Your task to perform on an android device: change keyboard looks Image 0: 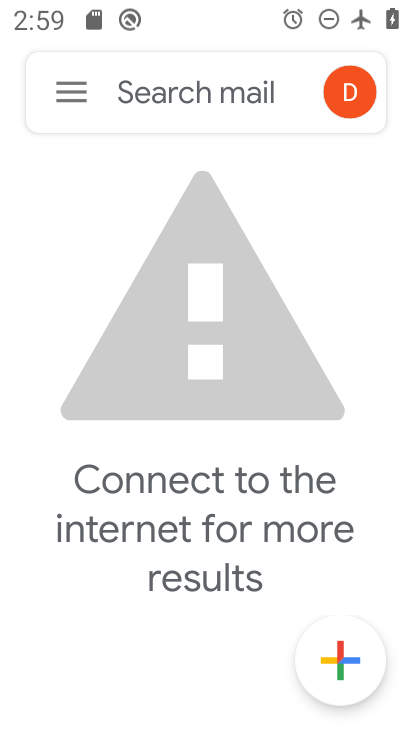
Step 0: press home button
Your task to perform on an android device: change keyboard looks Image 1: 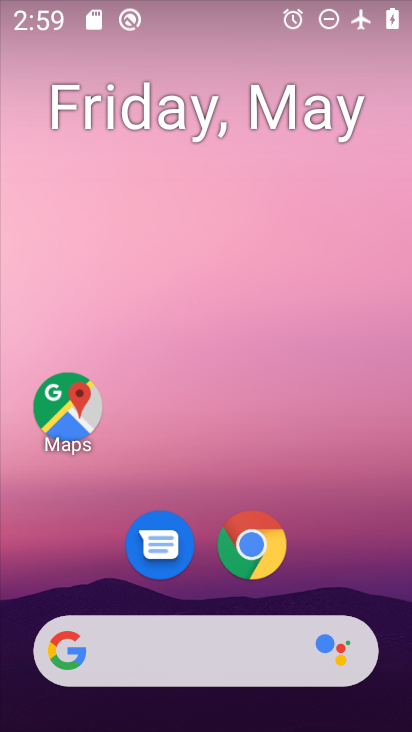
Step 1: drag from (327, 589) to (284, 360)
Your task to perform on an android device: change keyboard looks Image 2: 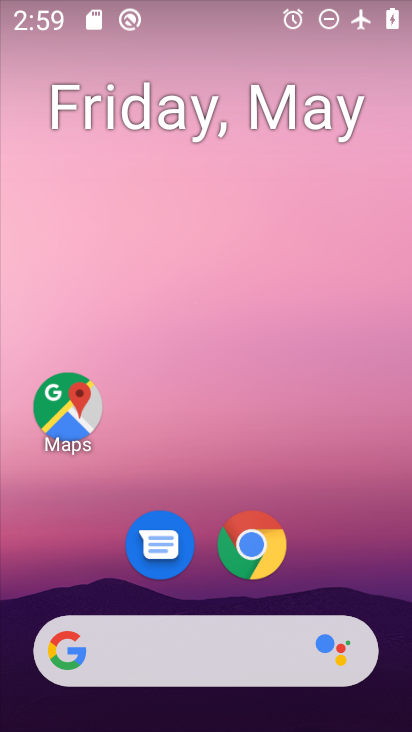
Step 2: click (217, 345)
Your task to perform on an android device: change keyboard looks Image 3: 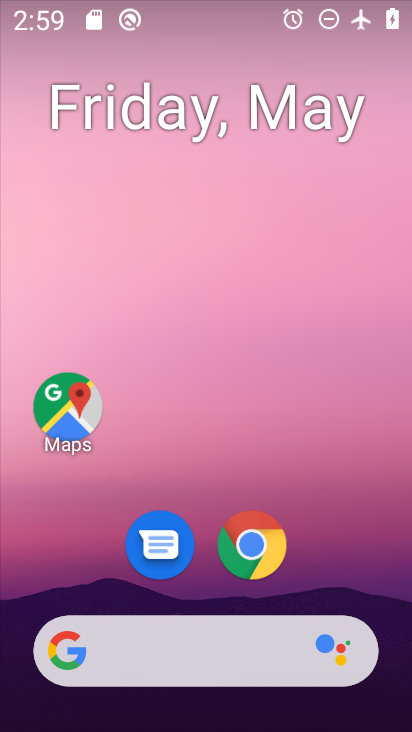
Step 3: drag from (218, 509) to (248, 258)
Your task to perform on an android device: change keyboard looks Image 4: 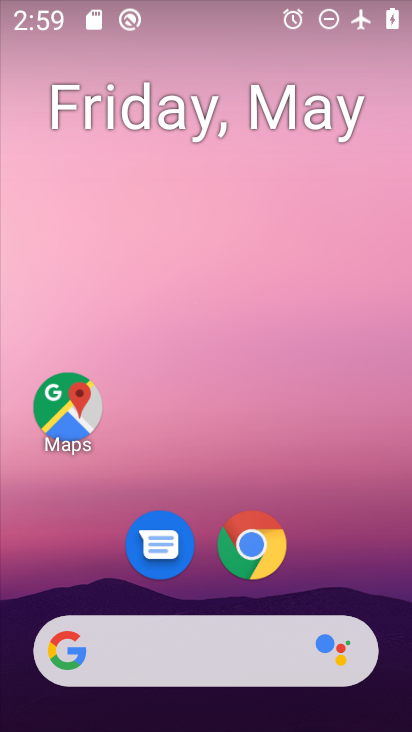
Step 4: drag from (211, 555) to (261, 207)
Your task to perform on an android device: change keyboard looks Image 5: 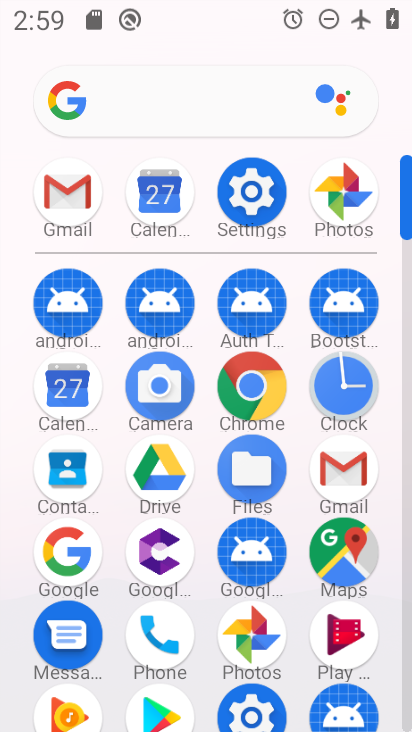
Step 5: click (244, 176)
Your task to perform on an android device: change keyboard looks Image 6: 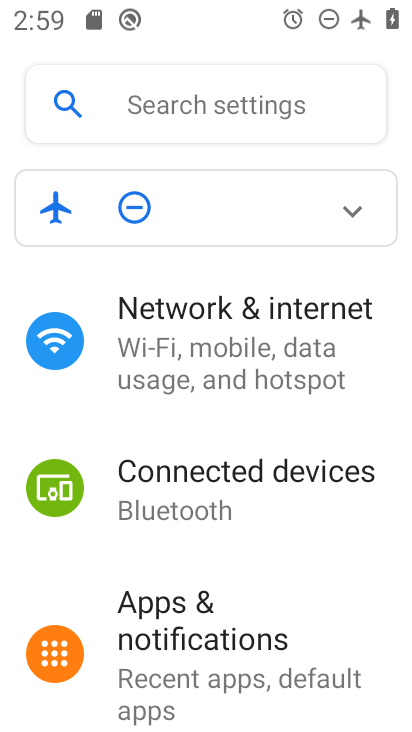
Step 6: drag from (189, 688) to (217, 190)
Your task to perform on an android device: change keyboard looks Image 7: 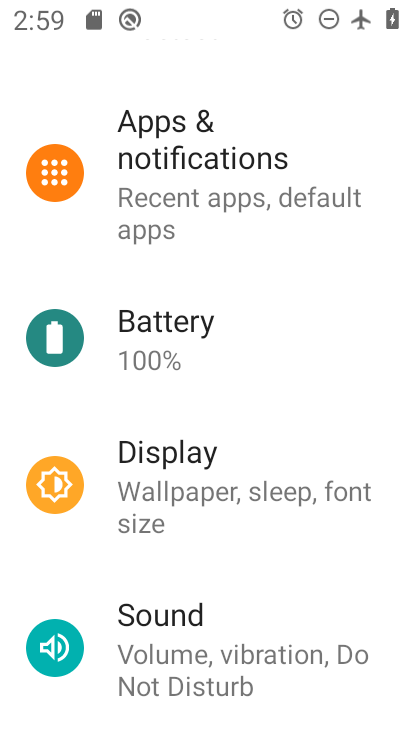
Step 7: drag from (210, 645) to (211, 280)
Your task to perform on an android device: change keyboard looks Image 8: 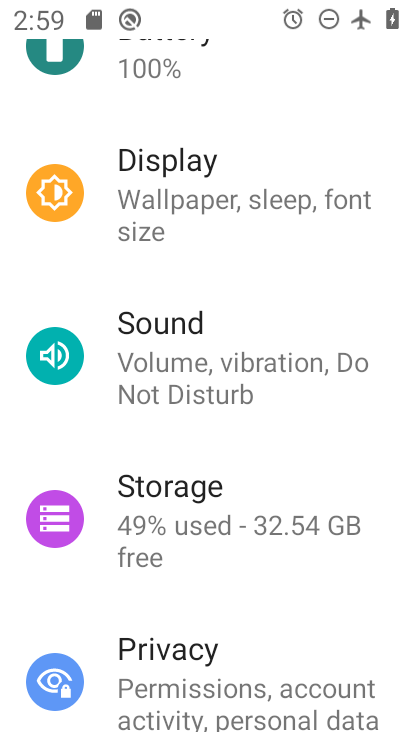
Step 8: drag from (218, 641) to (219, 284)
Your task to perform on an android device: change keyboard looks Image 9: 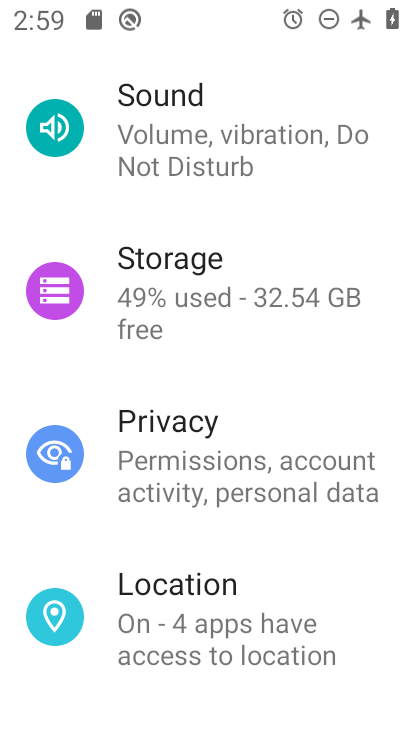
Step 9: drag from (244, 659) to (267, 219)
Your task to perform on an android device: change keyboard looks Image 10: 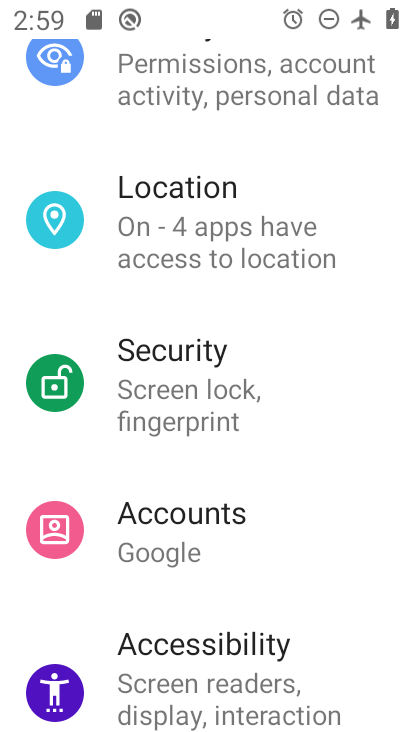
Step 10: drag from (307, 562) to (322, 301)
Your task to perform on an android device: change keyboard looks Image 11: 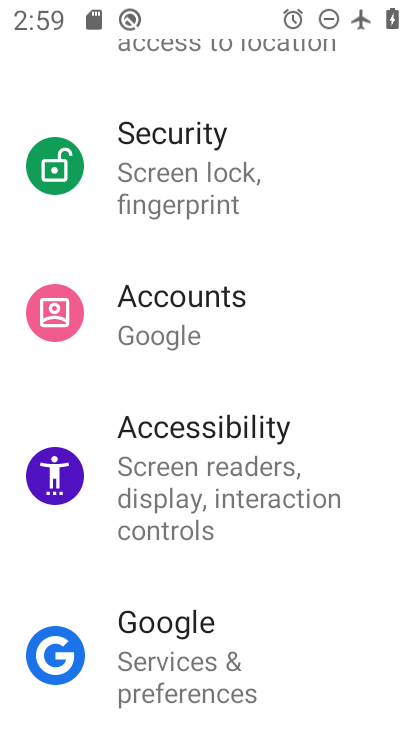
Step 11: click (236, 454)
Your task to perform on an android device: change keyboard looks Image 12: 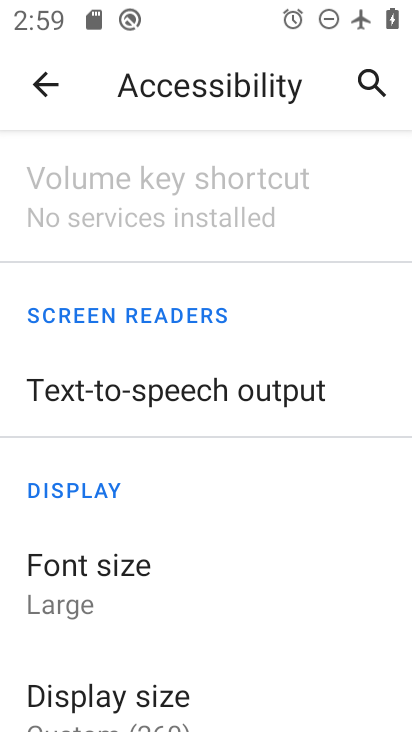
Step 12: click (49, 94)
Your task to perform on an android device: change keyboard looks Image 13: 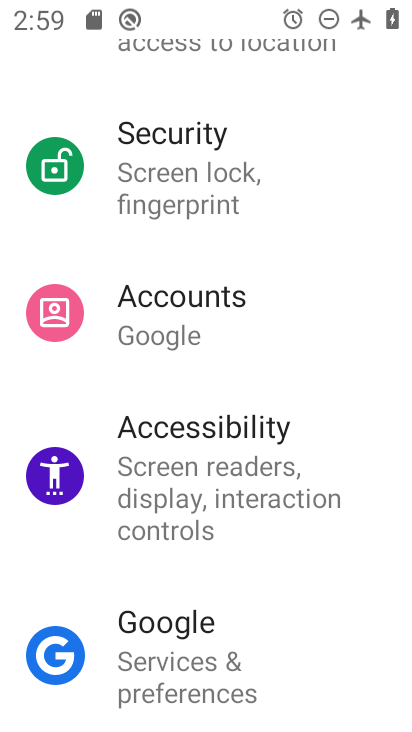
Step 13: drag from (187, 617) to (236, 296)
Your task to perform on an android device: change keyboard looks Image 14: 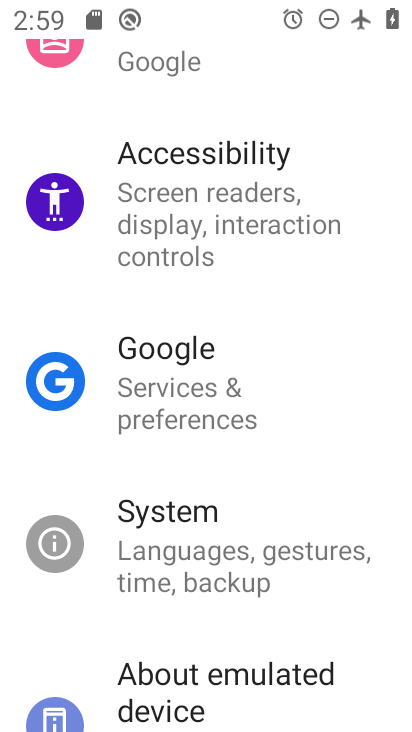
Step 14: click (212, 572)
Your task to perform on an android device: change keyboard looks Image 15: 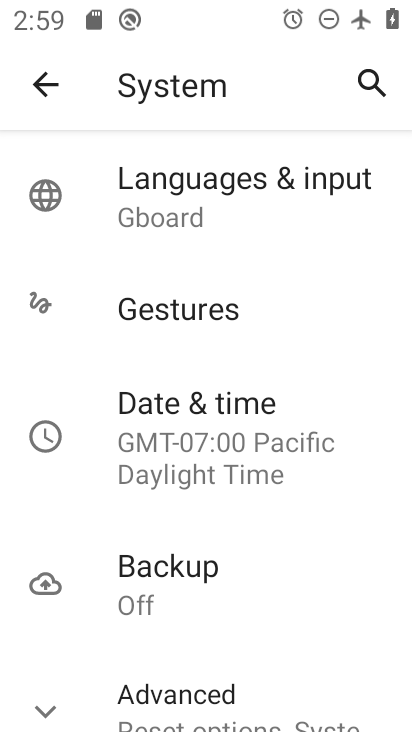
Step 15: click (175, 213)
Your task to perform on an android device: change keyboard looks Image 16: 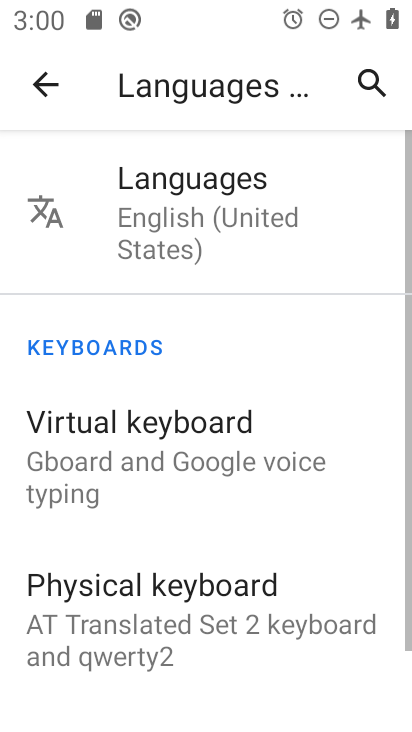
Step 16: click (172, 450)
Your task to perform on an android device: change keyboard looks Image 17: 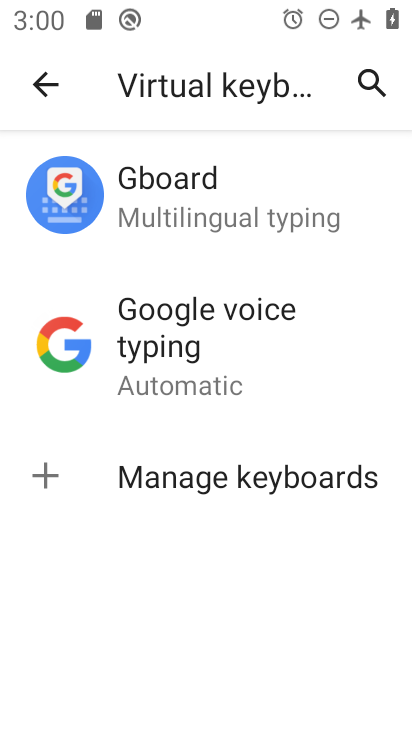
Step 17: click (170, 200)
Your task to perform on an android device: change keyboard looks Image 18: 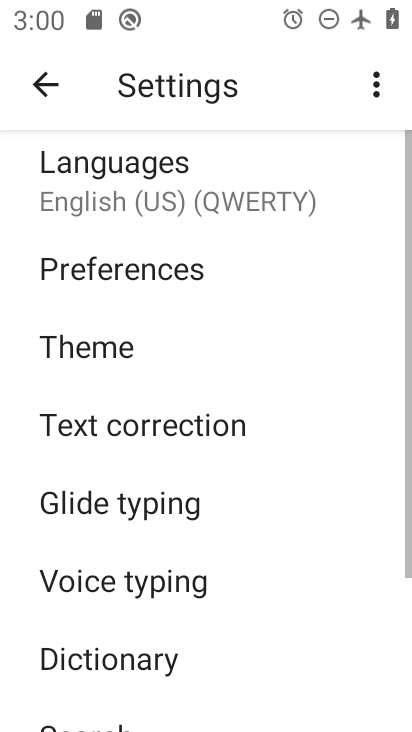
Step 18: click (117, 348)
Your task to perform on an android device: change keyboard looks Image 19: 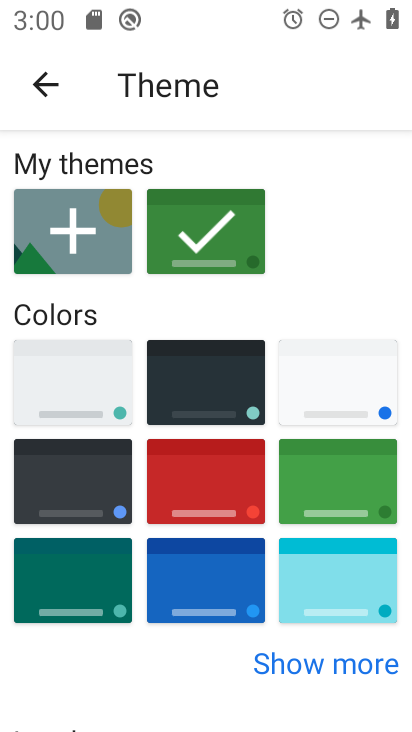
Step 19: click (212, 487)
Your task to perform on an android device: change keyboard looks Image 20: 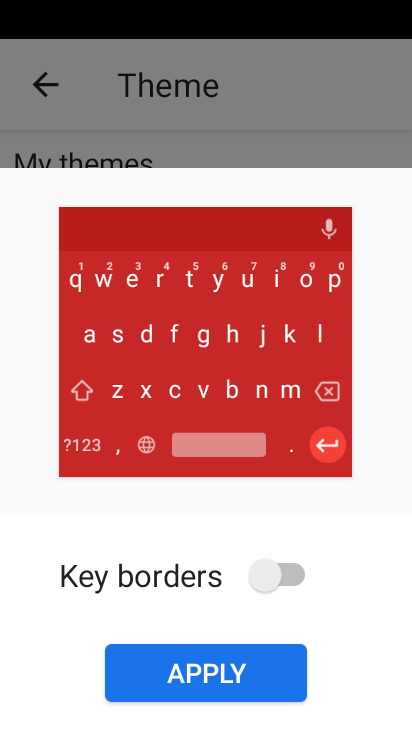
Step 20: click (167, 699)
Your task to perform on an android device: change keyboard looks Image 21: 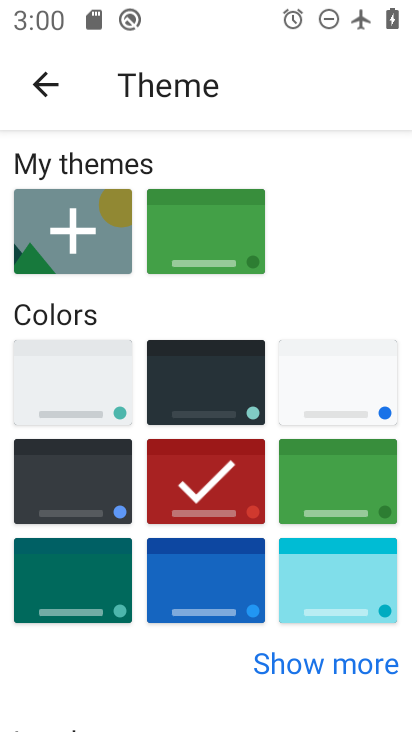
Step 21: task complete